Your task to perform on an android device: Open network settings Image 0: 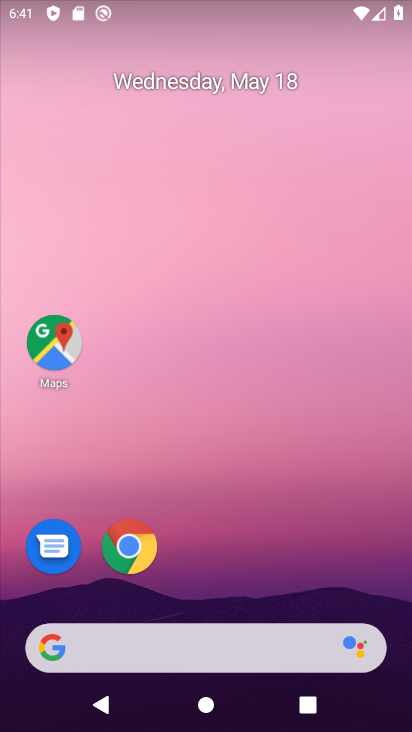
Step 0: drag from (389, 608) to (347, 84)
Your task to perform on an android device: Open network settings Image 1: 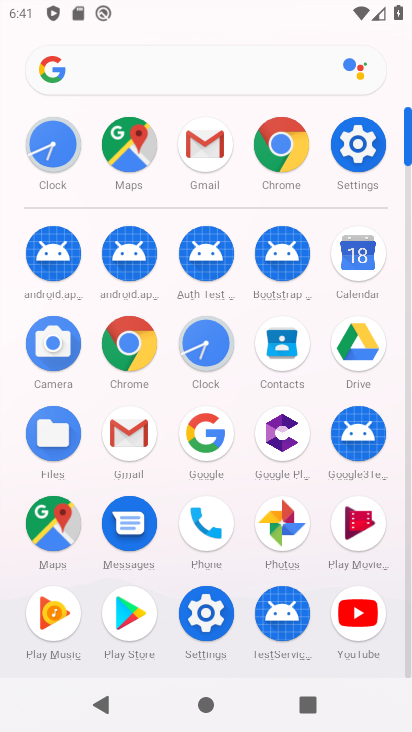
Step 1: click (352, 142)
Your task to perform on an android device: Open network settings Image 2: 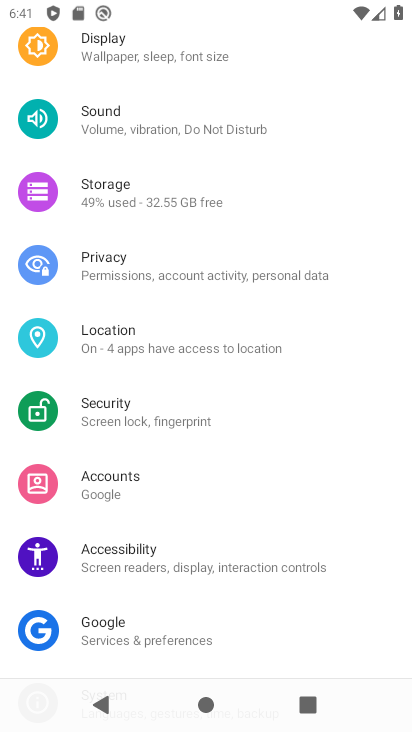
Step 2: drag from (252, 130) to (256, 576)
Your task to perform on an android device: Open network settings Image 3: 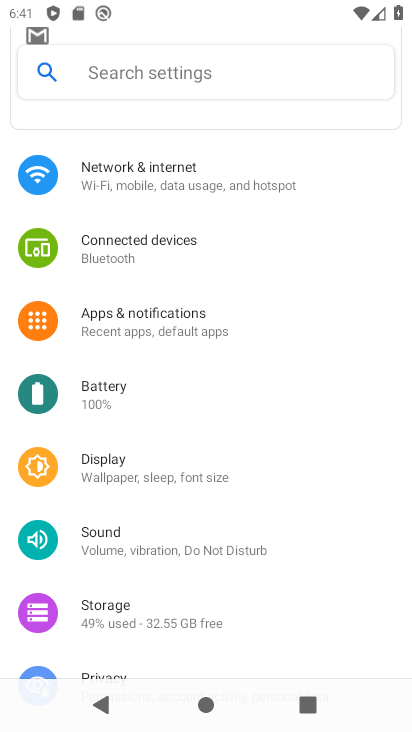
Step 3: click (221, 196)
Your task to perform on an android device: Open network settings Image 4: 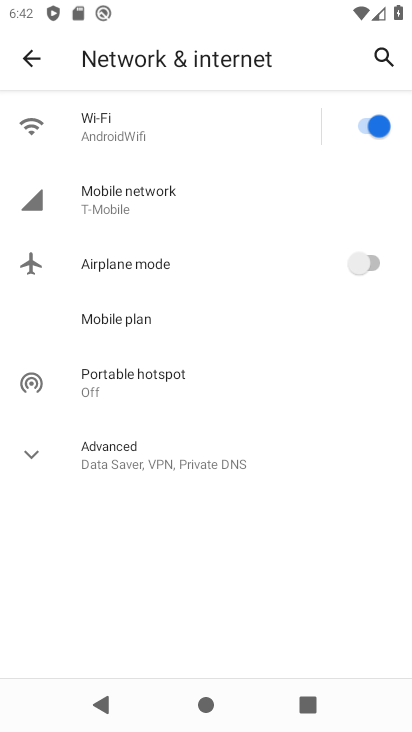
Step 4: task complete